Your task to perform on an android device: turn off priority inbox in the gmail app Image 0: 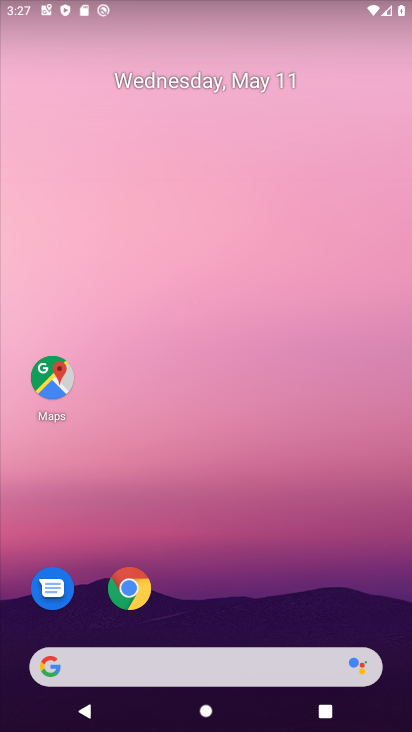
Step 0: drag from (228, 576) to (314, 29)
Your task to perform on an android device: turn off priority inbox in the gmail app Image 1: 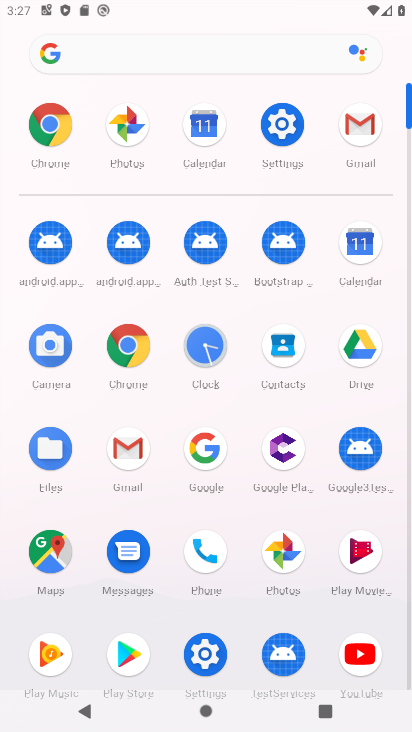
Step 1: click (122, 460)
Your task to perform on an android device: turn off priority inbox in the gmail app Image 2: 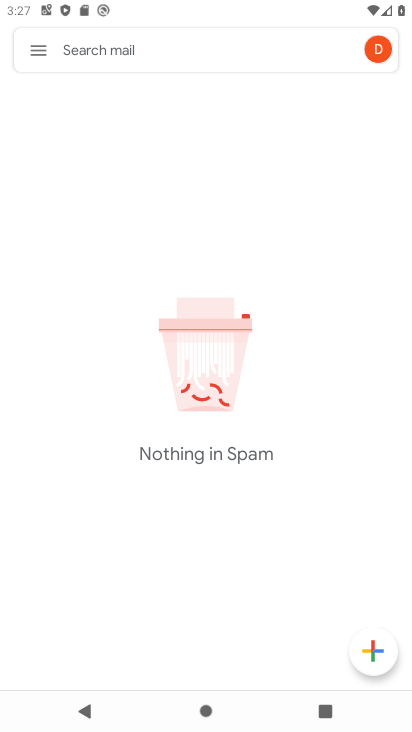
Step 2: click (38, 57)
Your task to perform on an android device: turn off priority inbox in the gmail app Image 3: 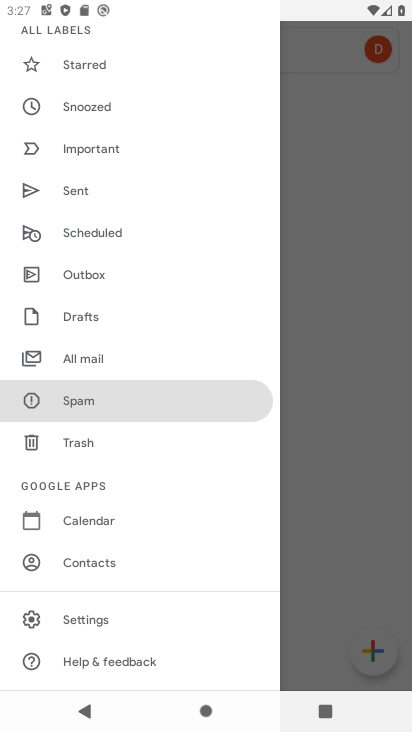
Step 3: click (103, 622)
Your task to perform on an android device: turn off priority inbox in the gmail app Image 4: 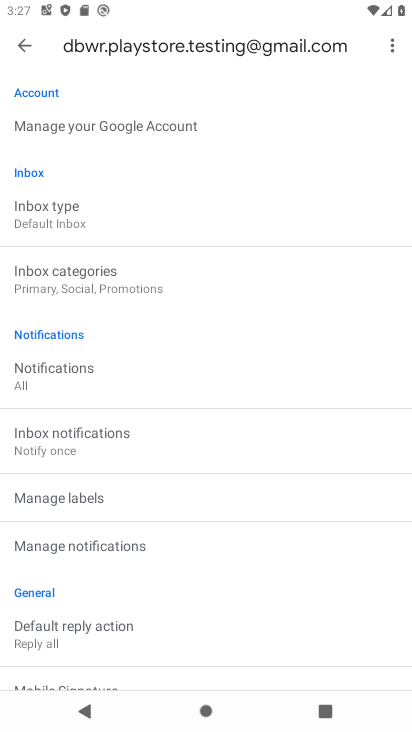
Step 4: click (89, 219)
Your task to perform on an android device: turn off priority inbox in the gmail app Image 5: 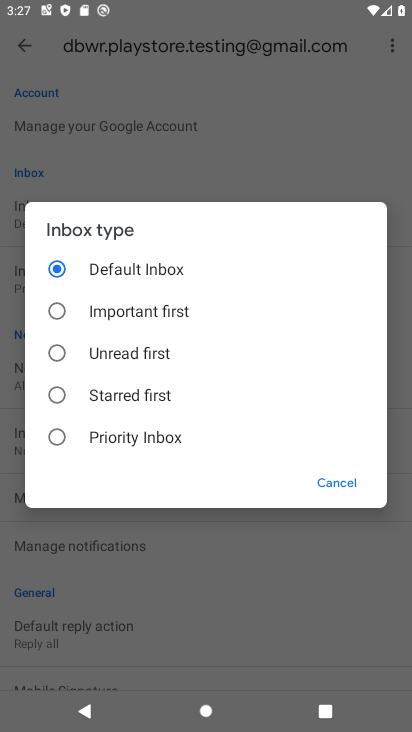
Step 5: click (107, 308)
Your task to perform on an android device: turn off priority inbox in the gmail app Image 6: 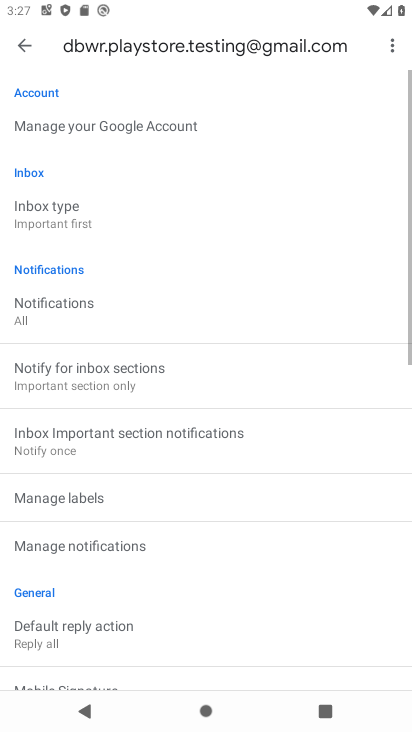
Step 6: click (73, 314)
Your task to perform on an android device: turn off priority inbox in the gmail app Image 7: 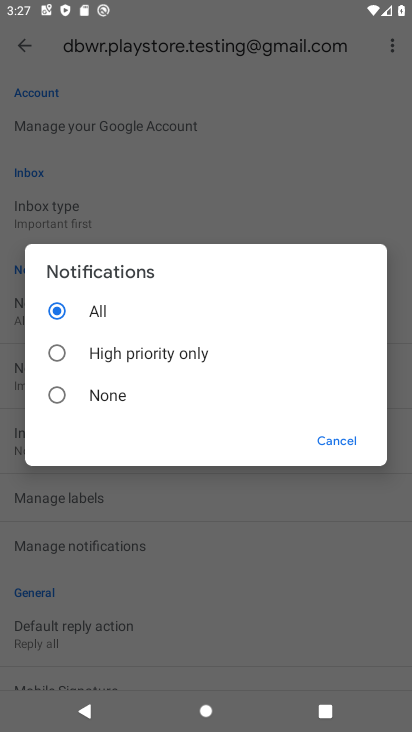
Step 7: click (352, 437)
Your task to perform on an android device: turn off priority inbox in the gmail app Image 8: 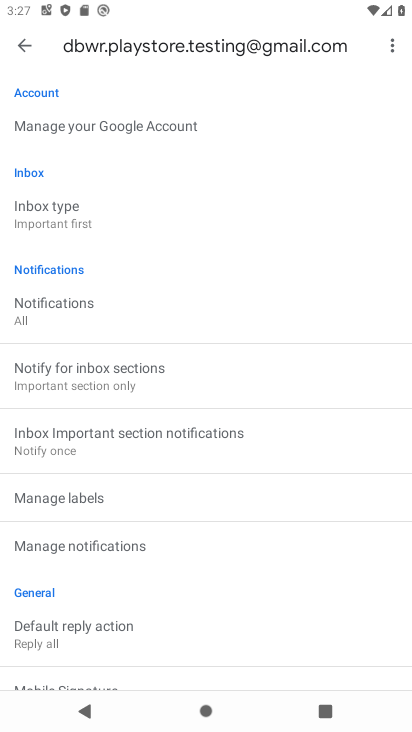
Step 8: task complete